Your task to perform on an android device: When is my next meeting? Image 0: 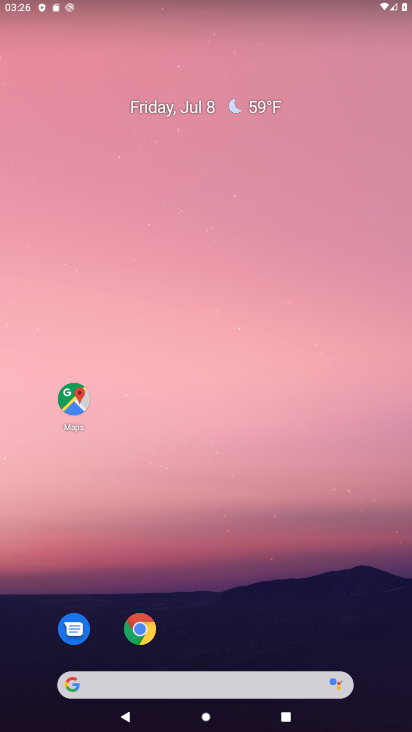
Step 0: drag from (205, 653) to (199, 83)
Your task to perform on an android device: When is my next meeting? Image 1: 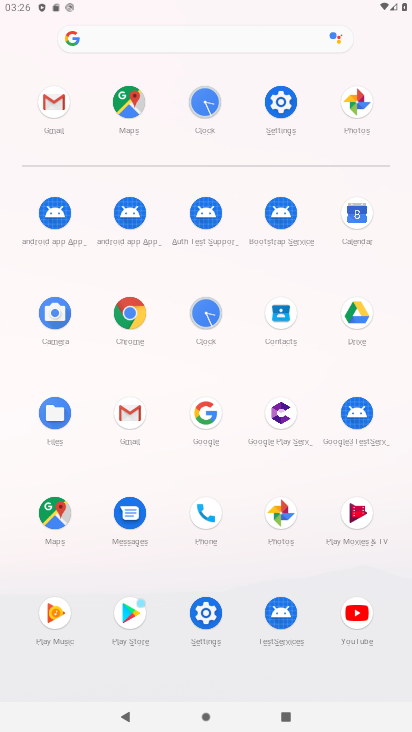
Step 1: click (356, 215)
Your task to perform on an android device: When is my next meeting? Image 2: 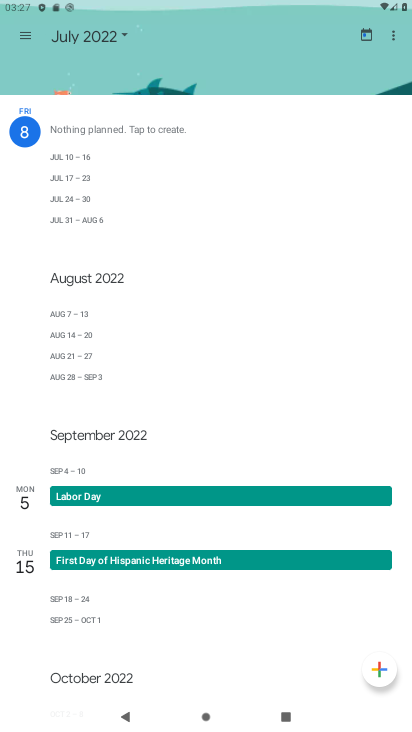
Step 2: task complete